Your task to perform on an android device: turn on improve location accuracy Image 0: 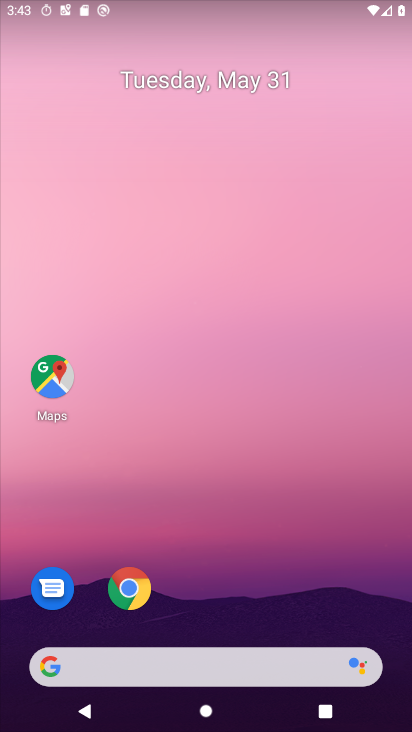
Step 0: drag from (275, 629) to (286, 116)
Your task to perform on an android device: turn on improve location accuracy Image 1: 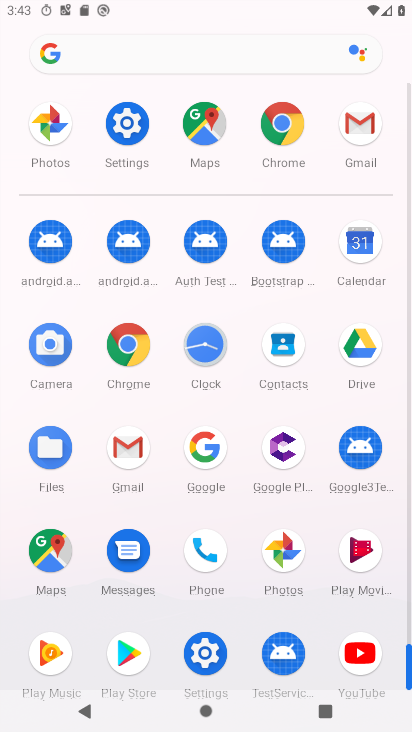
Step 1: click (115, 147)
Your task to perform on an android device: turn on improve location accuracy Image 2: 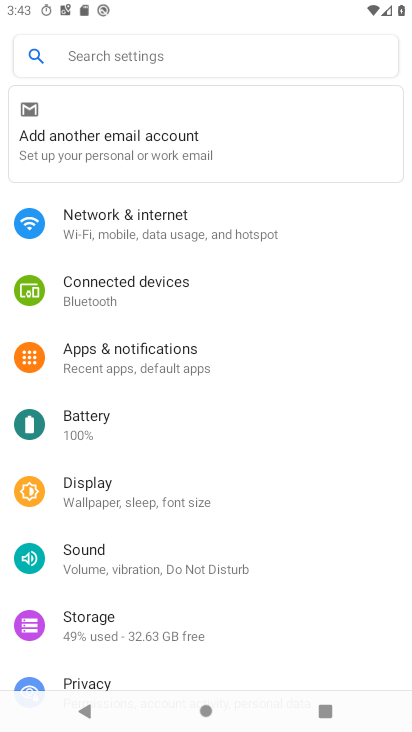
Step 2: drag from (182, 529) to (241, 297)
Your task to perform on an android device: turn on improve location accuracy Image 3: 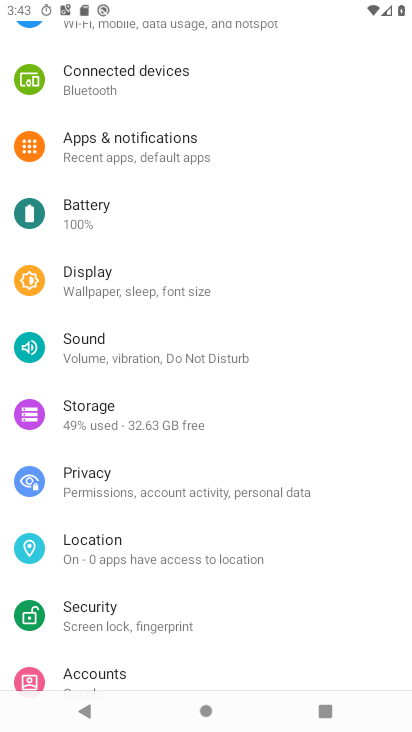
Step 3: click (150, 539)
Your task to perform on an android device: turn on improve location accuracy Image 4: 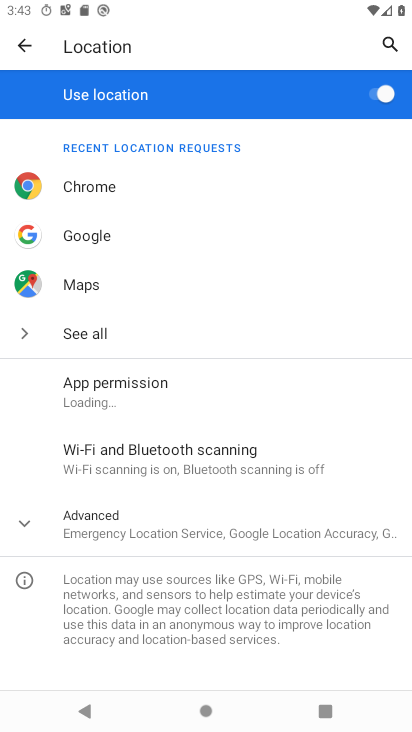
Step 4: click (136, 518)
Your task to perform on an android device: turn on improve location accuracy Image 5: 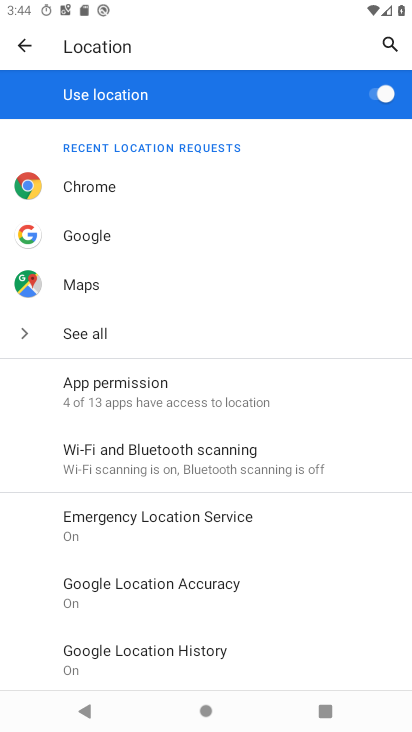
Step 5: click (187, 594)
Your task to perform on an android device: turn on improve location accuracy Image 6: 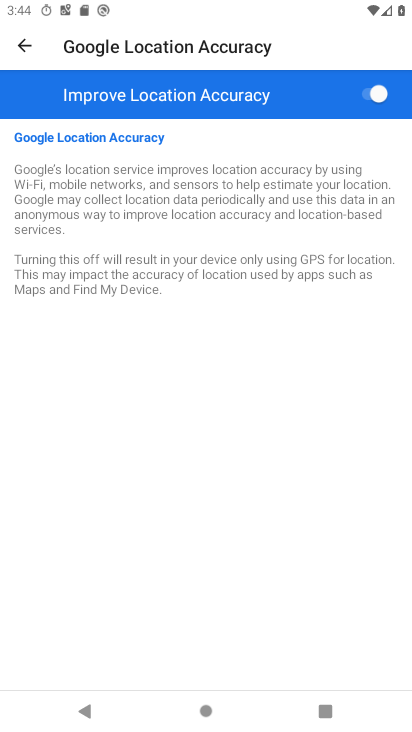
Step 6: task complete